Your task to perform on an android device: Open Google Chrome and click the shortcut for Amazon.com Image 0: 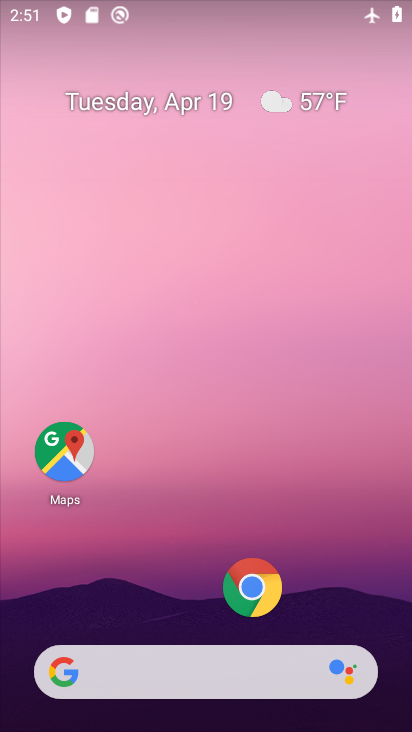
Step 0: click (243, 574)
Your task to perform on an android device: Open Google Chrome and click the shortcut for Amazon.com Image 1: 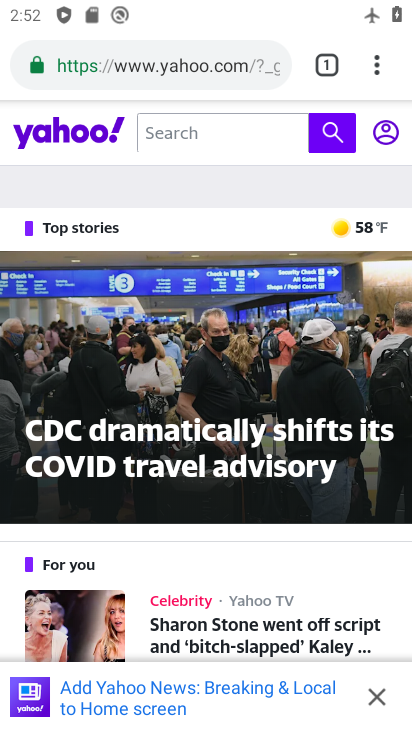
Step 1: click (331, 63)
Your task to perform on an android device: Open Google Chrome and click the shortcut for Amazon.com Image 2: 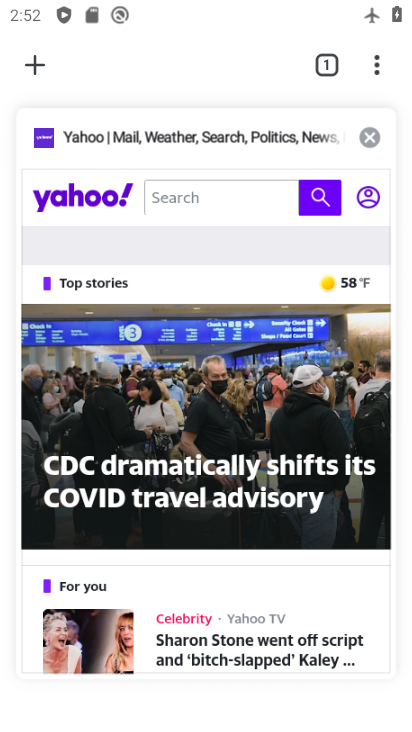
Step 2: click (33, 56)
Your task to perform on an android device: Open Google Chrome and click the shortcut for Amazon.com Image 3: 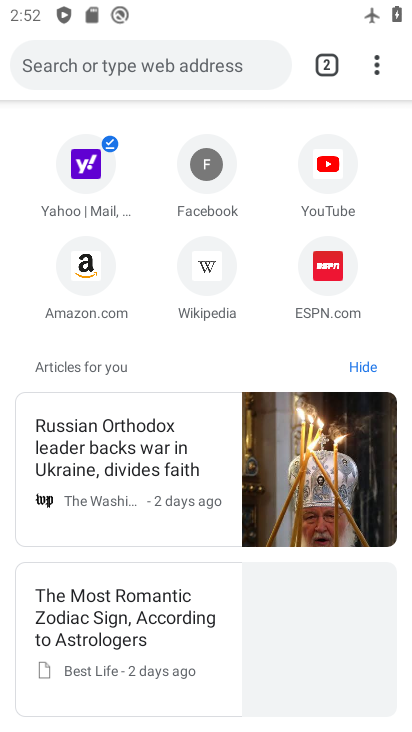
Step 3: click (101, 263)
Your task to perform on an android device: Open Google Chrome and click the shortcut for Amazon.com Image 4: 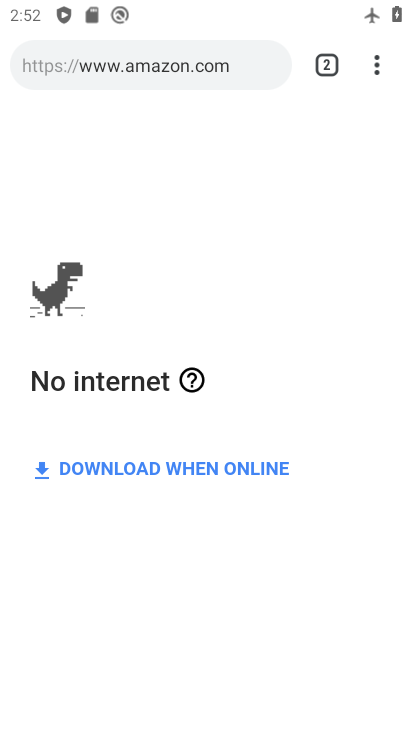
Step 4: task complete